Your task to perform on an android device: Open Chrome and go to settings Image 0: 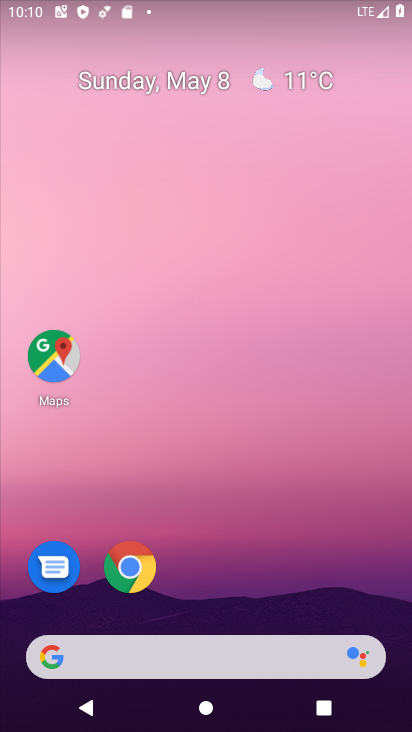
Step 0: click (126, 568)
Your task to perform on an android device: Open Chrome and go to settings Image 1: 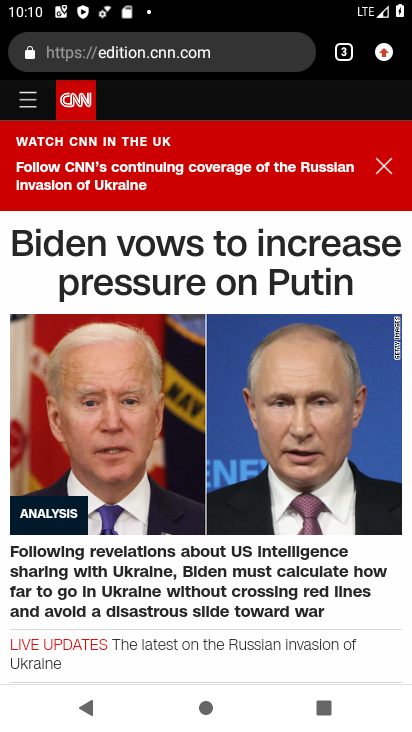
Step 1: task complete